Your task to perform on an android device: Go to location settings Image 0: 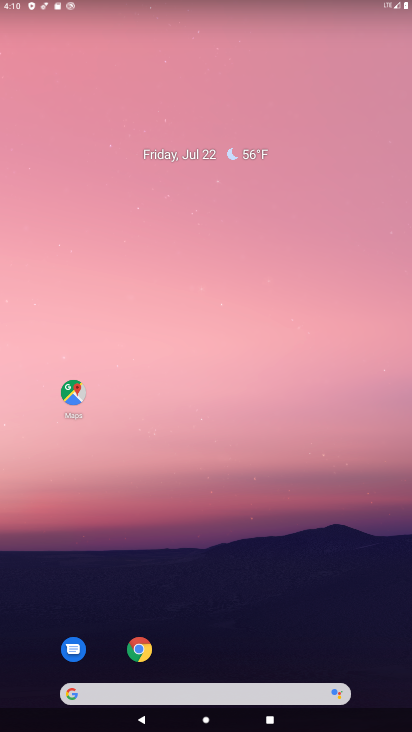
Step 0: drag from (237, 348) to (205, 122)
Your task to perform on an android device: Go to location settings Image 1: 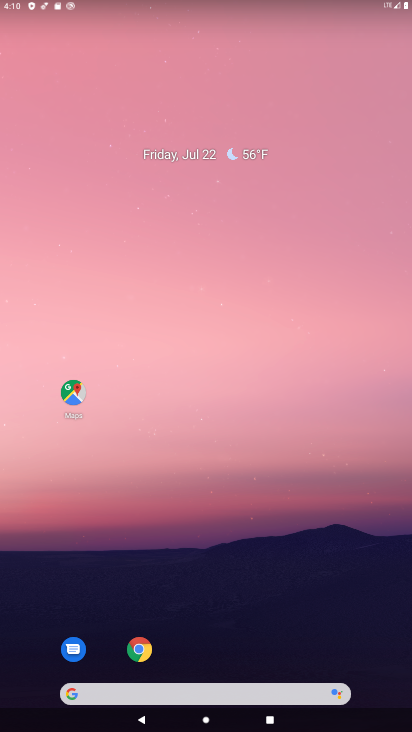
Step 1: drag from (192, 399) to (127, 106)
Your task to perform on an android device: Go to location settings Image 2: 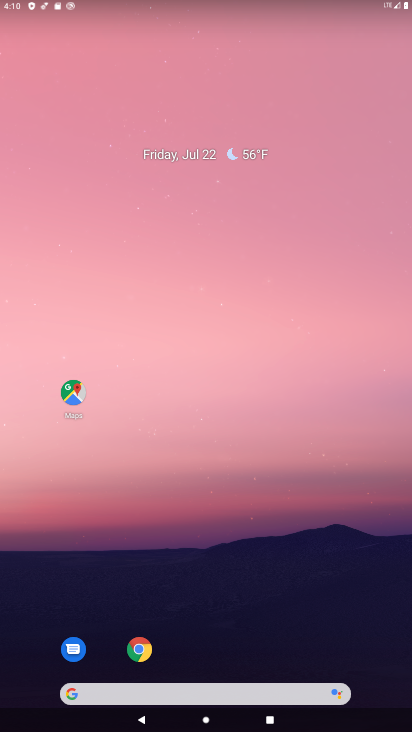
Step 2: drag from (149, 252) to (171, 49)
Your task to perform on an android device: Go to location settings Image 3: 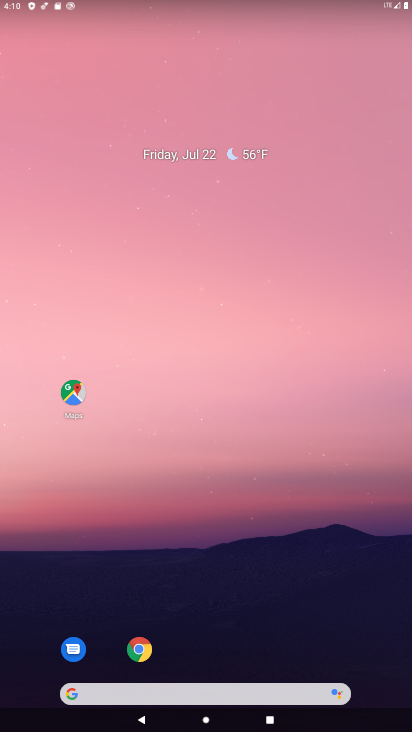
Step 3: drag from (198, 206) to (189, 89)
Your task to perform on an android device: Go to location settings Image 4: 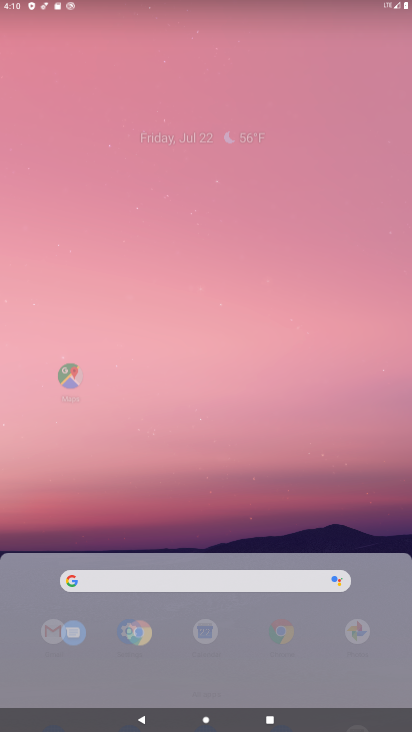
Step 4: drag from (236, 582) to (179, 125)
Your task to perform on an android device: Go to location settings Image 5: 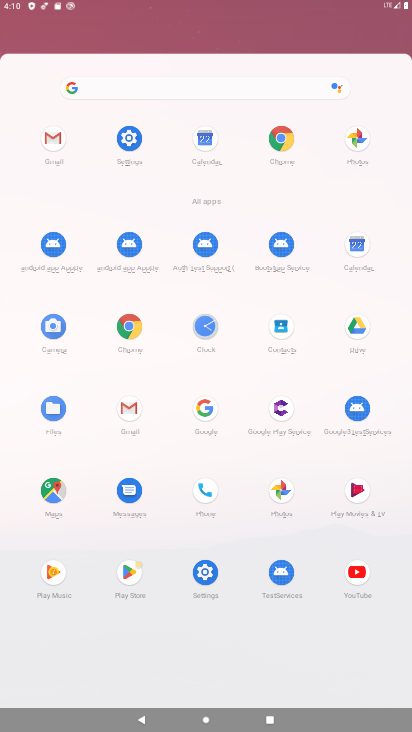
Step 5: drag from (191, 423) to (177, 52)
Your task to perform on an android device: Go to location settings Image 6: 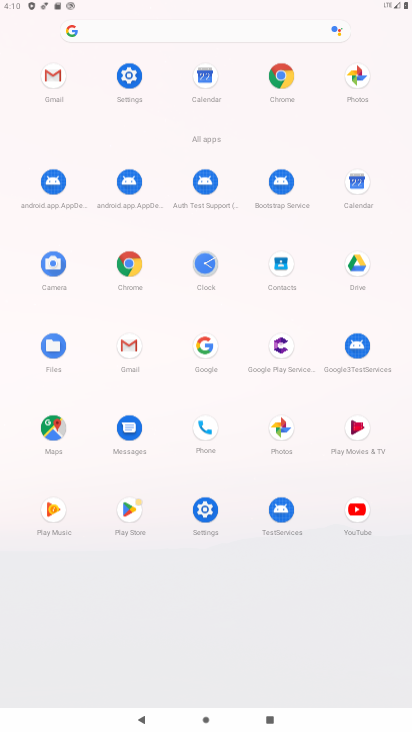
Step 6: drag from (191, 395) to (158, 203)
Your task to perform on an android device: Go to location settings Image 7: 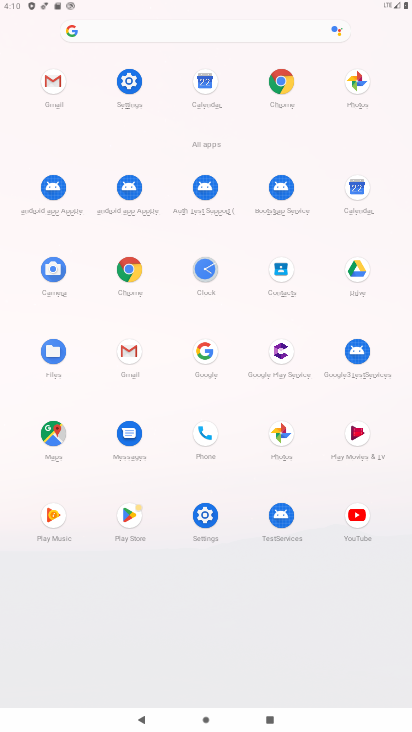
Step 7: click (207, 515)
Your task to perform on an android device: Go to location settings Image 8: 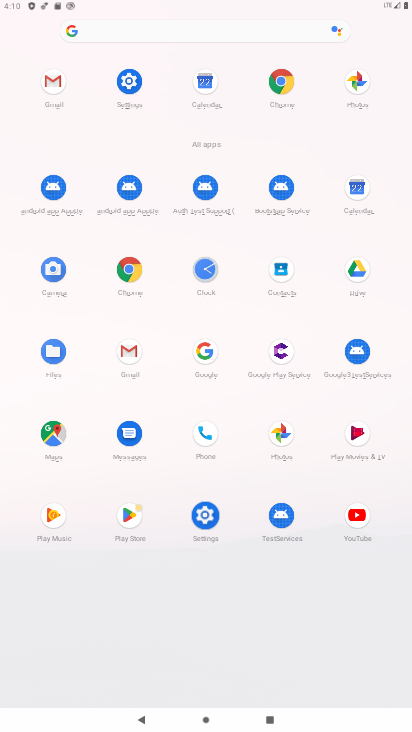
Step 8: click (206, 516)
Your task to perform on an android device: Go to location settings Image 9: 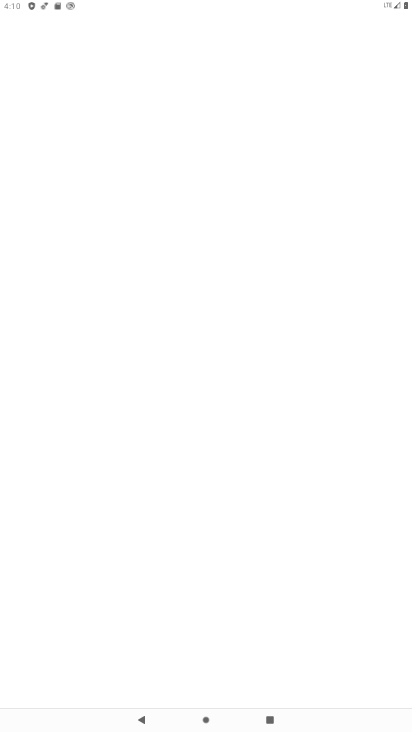
Step 9: click (207, 517)
Your task to perform on an android device: Go to location settings Image 10: 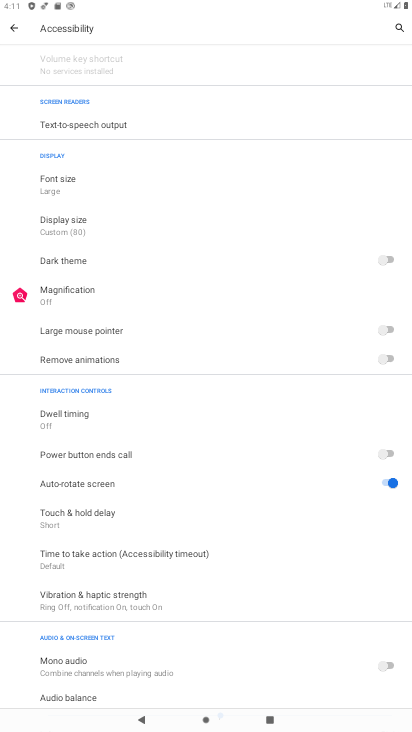
Step 10: task complete